Your task to perform on an android device: Open settings Image 0: 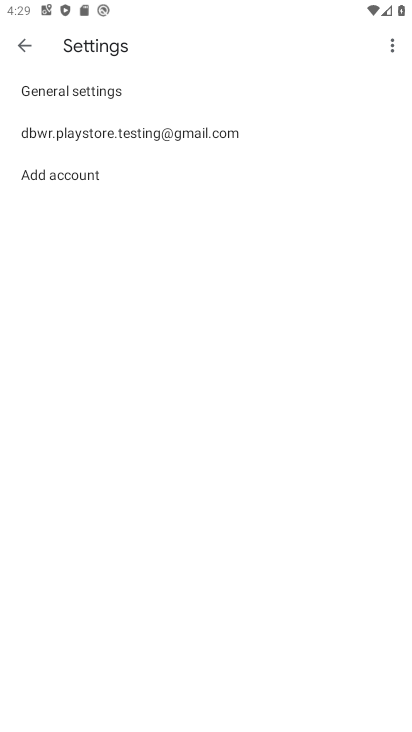
Step 0: press home button
Your task to perform on an android device: Open settings Image 1: 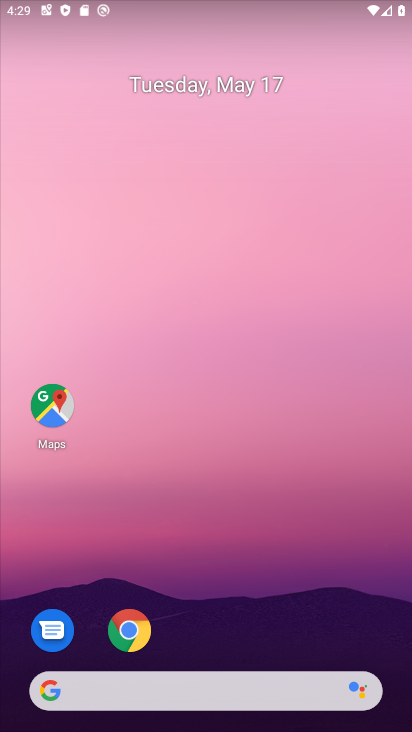
Step 1: drag from (272, 623) to (298, 90)
Your task to perform on an android device: Open settings Image 2: 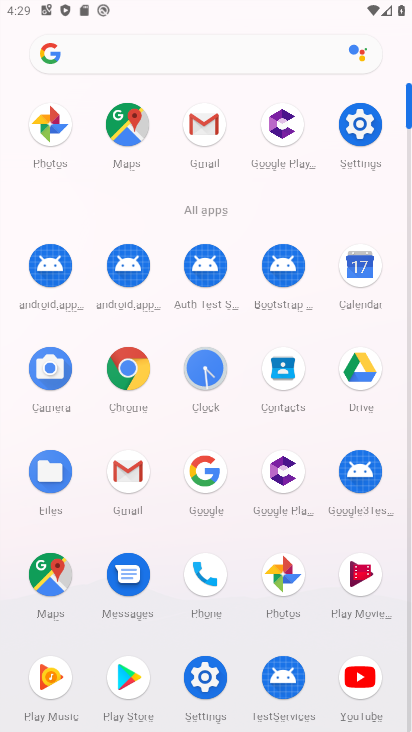
Step 2: click (357, 128)
Your task to perform on an android device: Open settings Image 3: 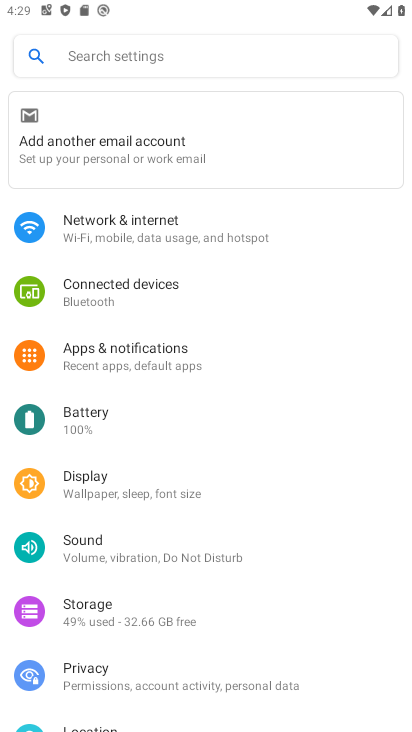
Step 3: task complete